Your task to perform on an android device: Open Chrome and go to the settings page Image 0: 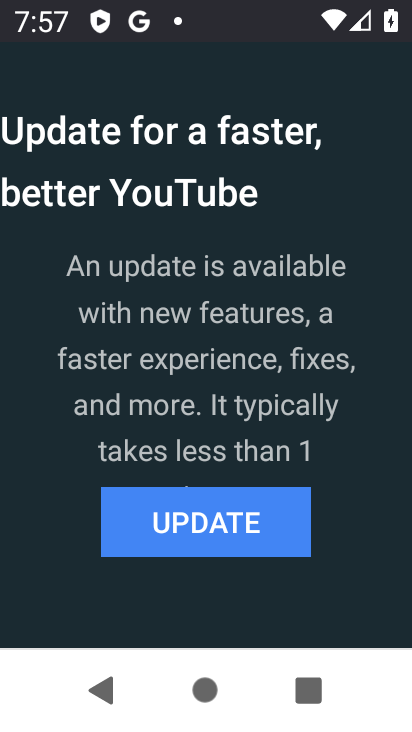
Step 0: press home button
Your task to perform on an android device: Open Chrome and go to the settings page Image 1: 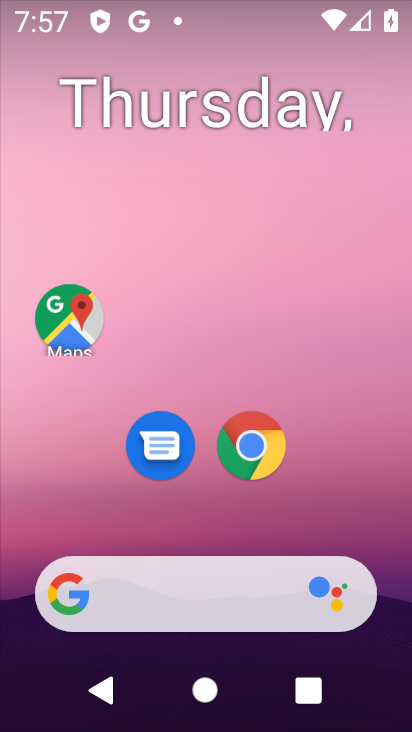
Step 1: drag from (334, 513) to (295, 131)
Your task to perform on an android device: Open Chrome and go to the settings page Image 2: 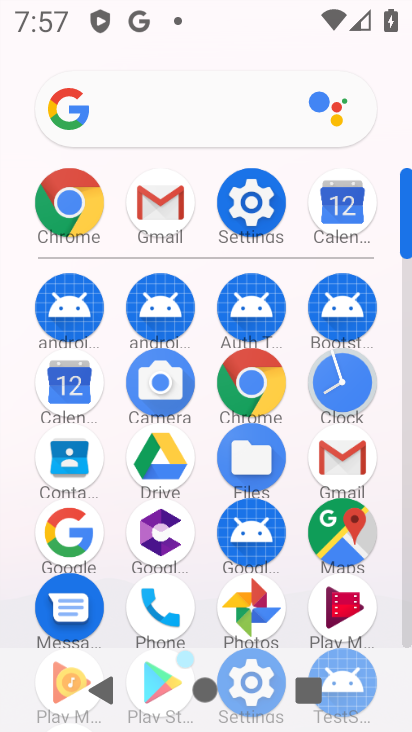
Step 2: click (271, 370)
Your task to perform on an android device: Open Chrome and go to the settings page Image 3: 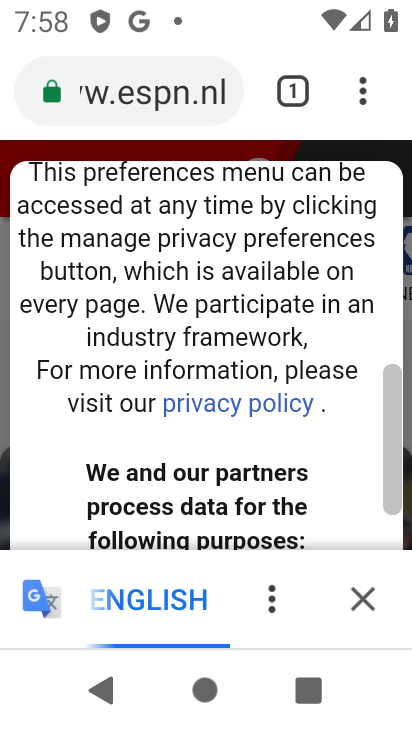
Step 3: task complete